Your task to perform on an android device: Open Google Chrome Image 0: 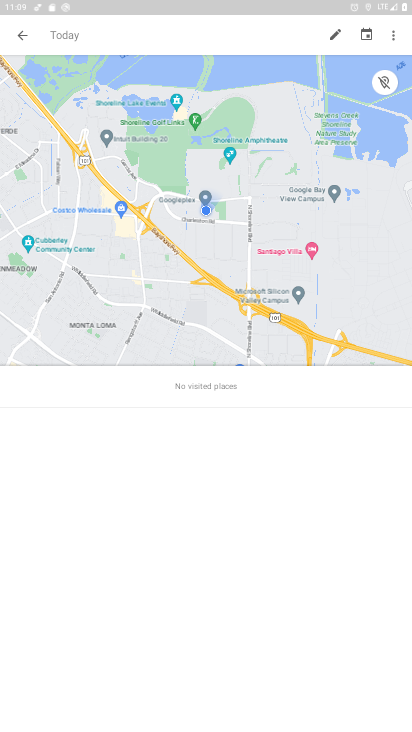
Step 0: press home button
Your task to perform on an android device: Open Google Chrome Image 1: 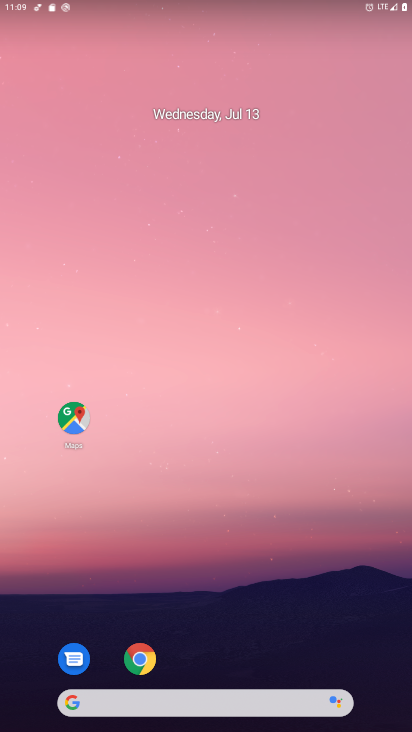
Step 1: click (137, 659)
Your task to perform on an android device: Open Google Chrome Image 2: 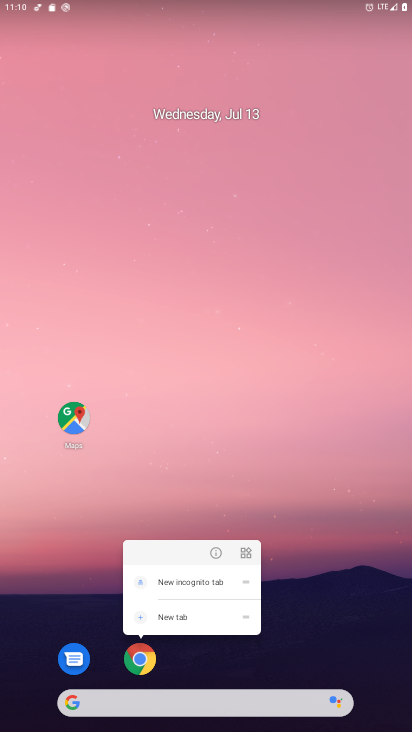
Step 2: click (141, 652)
Your task to perform on an android device: Open Google Chrome Image 3: 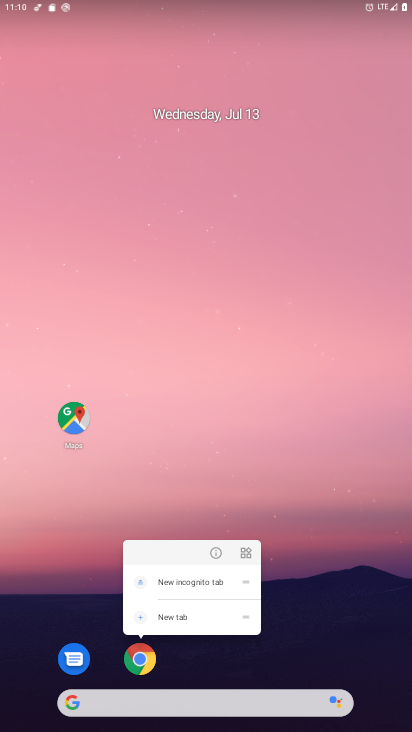
Step 3: click (141, 652)
Your task to perform on an android device: Open Google Chrome Image 4: 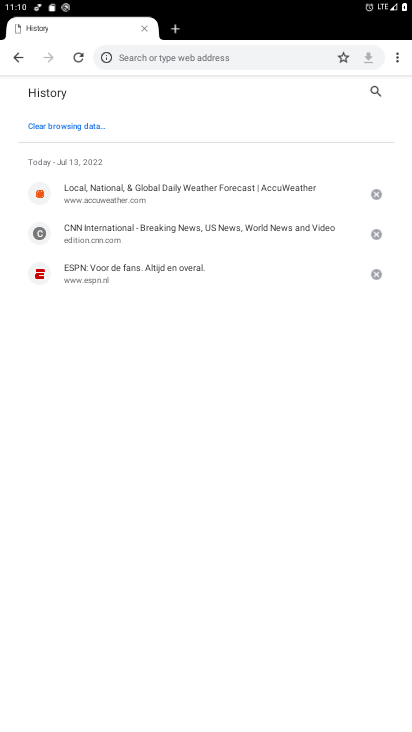
Step 4: click (180, 26)
Your task to perform on an android device: Open Google Chrome Image 5: 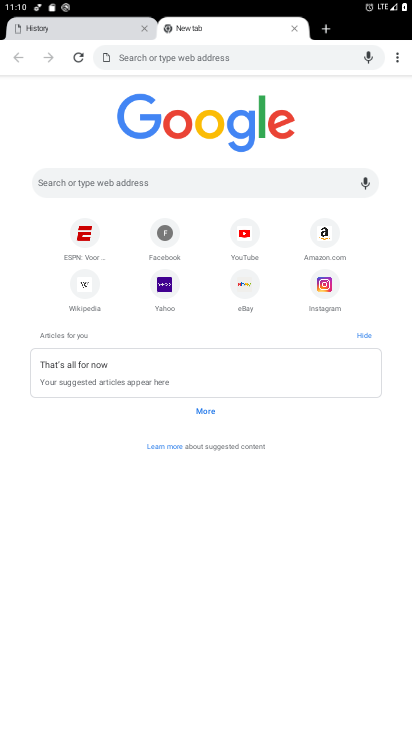
Step 5: task complete